Your task to perform on an android device: Open Google Image 0: 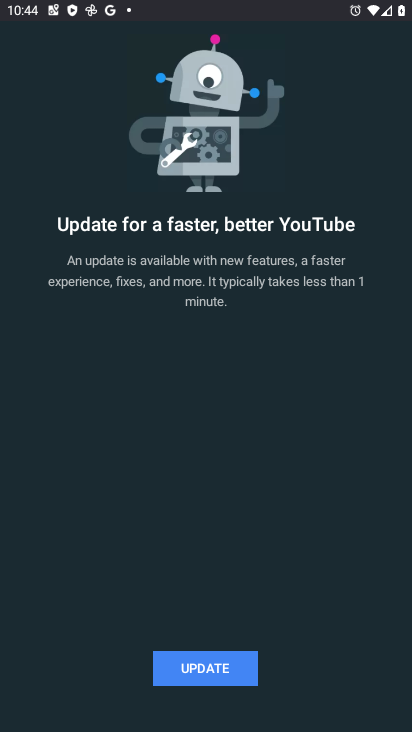
Step 0: press home button
Your task to perform on an android device: Open Google Image 1: 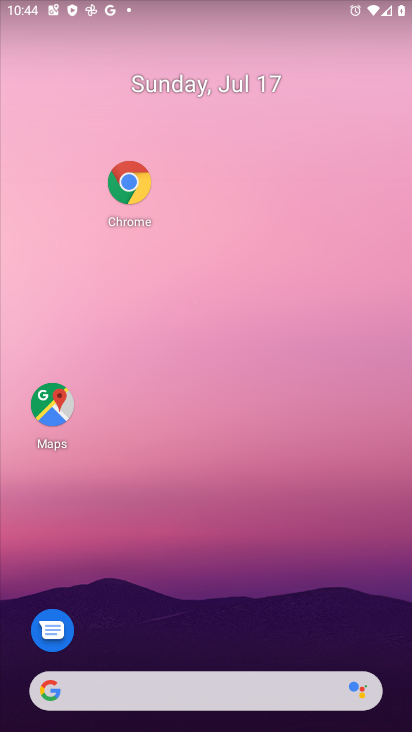
Step 1: click (163, 687)
Your task to perform on an android device: Open Google Image 2: 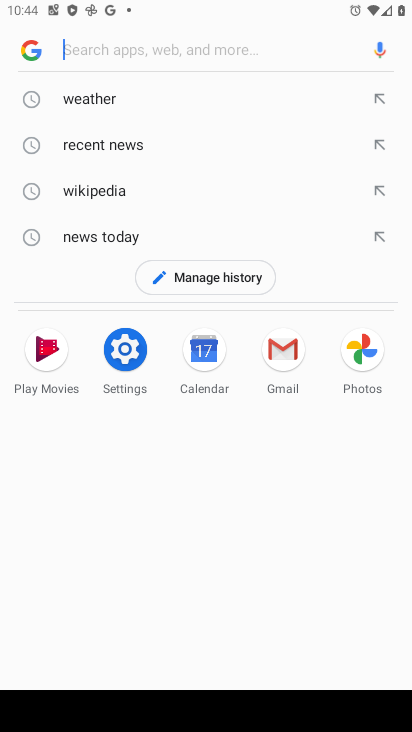
Step 2: task complete